Your task to perform on an android device: change notifications settings Image 0: 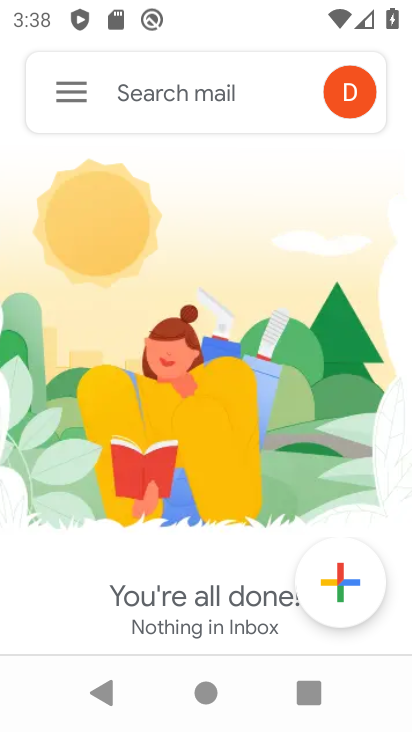
Step 0: press back button
Your task to perform on an android device: change notifications settings Image 1: 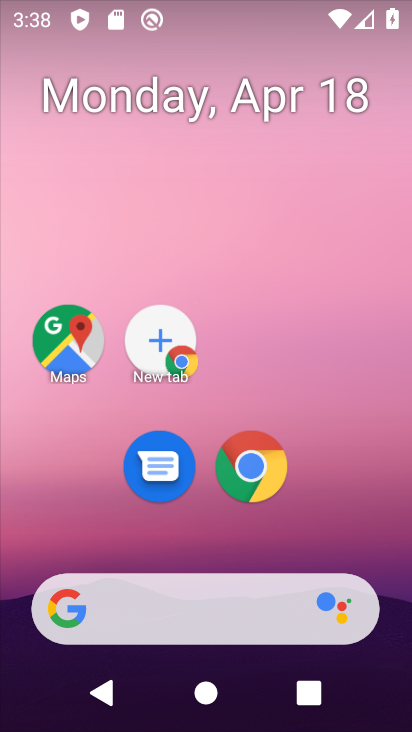
Step 1: drag from (364, 521) to (268, 32)
Your task to perform on an android device: change notifications settings Image 2: 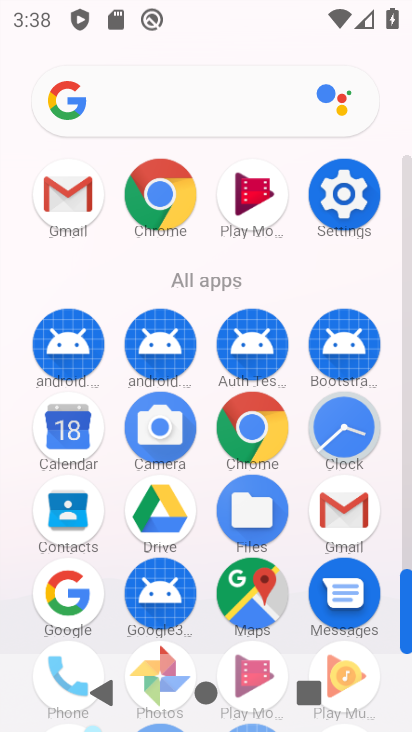
Step 2: click (347, 197)
Your task to perform on an android device: change notifications settings Image 3: 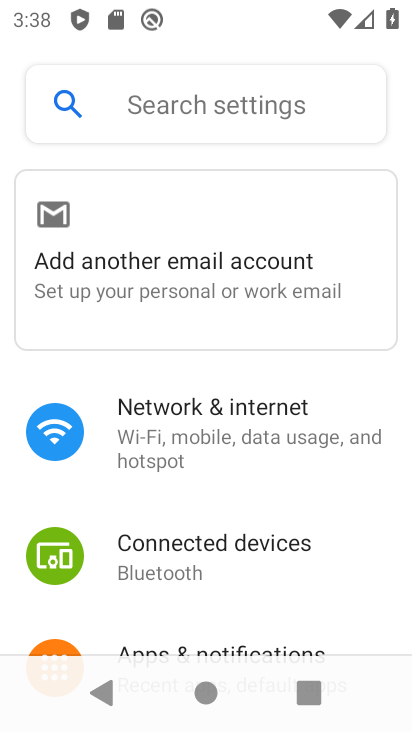
Step 3: drag from (330, 517) to (348, 227)
Your task to perform on an android device: change notifications settings Image 4: 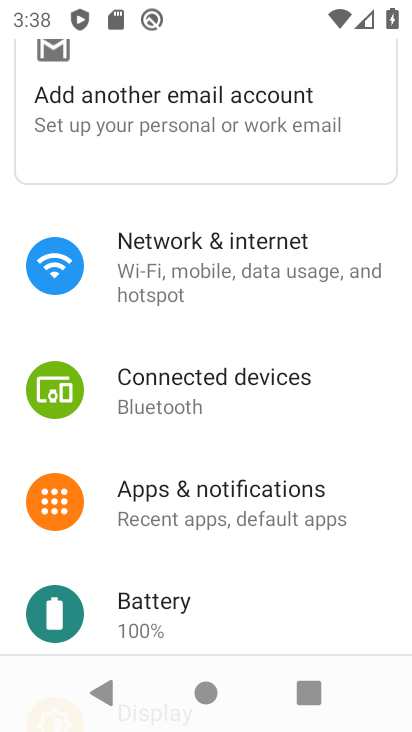
Step 4: click (293, 496)
Your task to perform on an android device: change notifications settings Image 5: 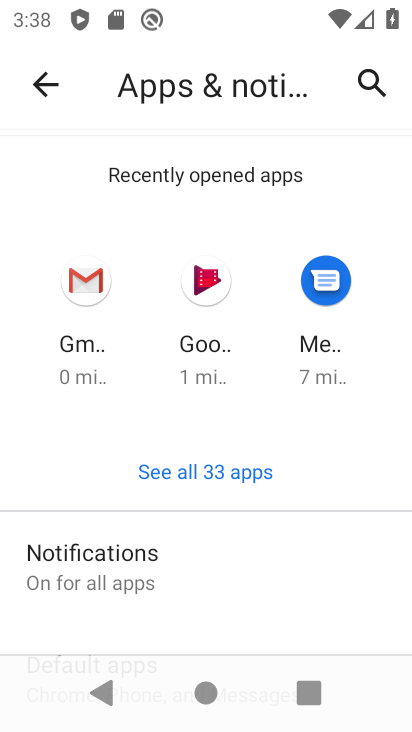
Step 5: click (190, 568)
Your task to perform on an android device: change notifications settings Image 6: 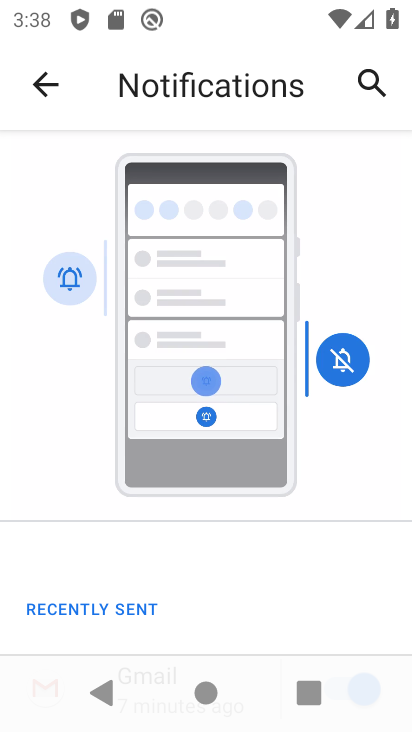
Step 6: drag from (191, 542) to (193, 182)
Your task to perform on an android device: change notifications settings Image 7: 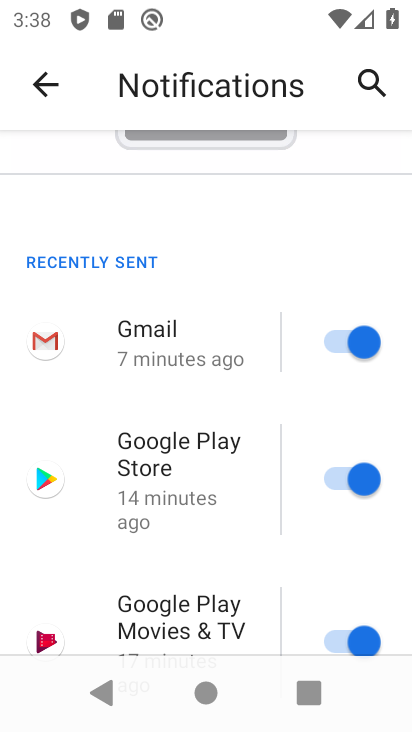
Step 7: drag from (193, 522) to (187, 231)
Your task to perform on an android device: change notifications settings Image 8: 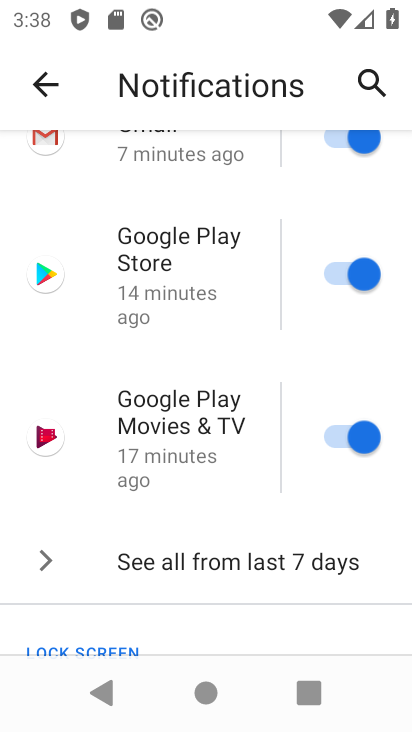
Step 8: drag from (217, 547) to (224, 196)
Your task to perform on an android device: change notifications settings Image 9: 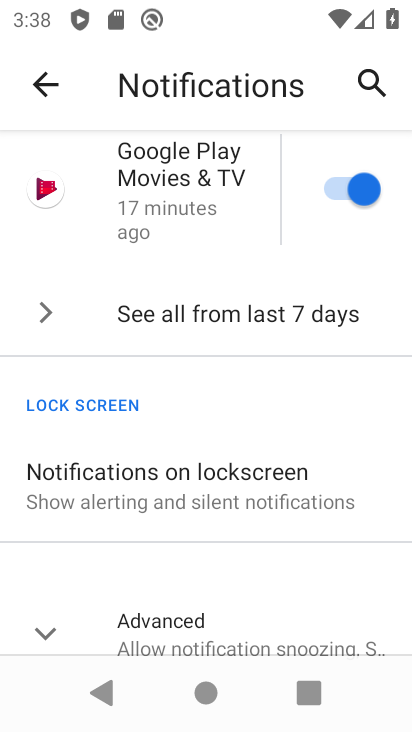
Step 9: drag from (236, 513) to (224, 245)
Your task to perform on an android device: change notifications settings Image 10: 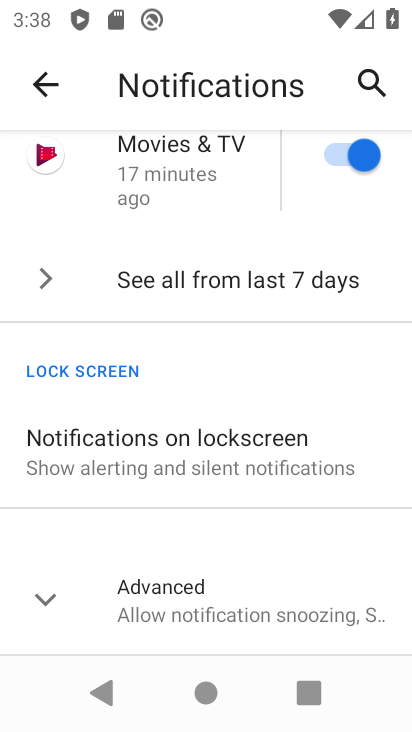
Step 10: click (218, 588)
Your task to perform on an android device: change notifications settings Image 11: 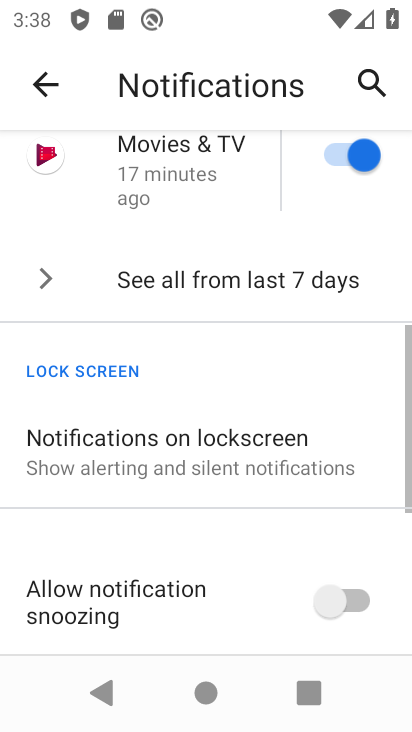
Step 11: drag from (239, 583) to (250, 272)
Your task to perform on an android device: change notifications settings Image 12: 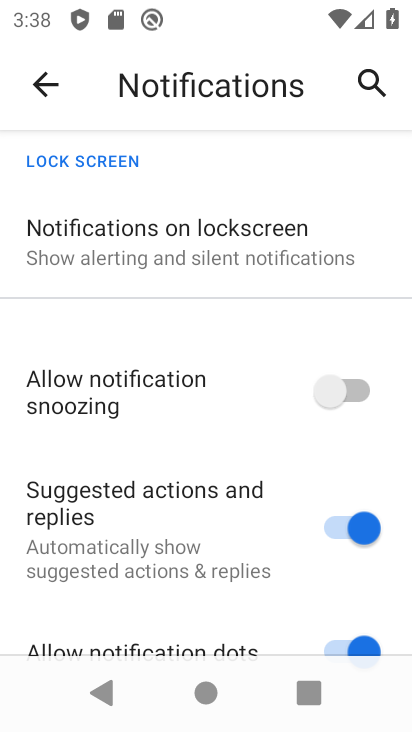
Step 12: drag from (228, 631) to (228, 328)
Your task to perform on an android device: change notifications settings Image 13: 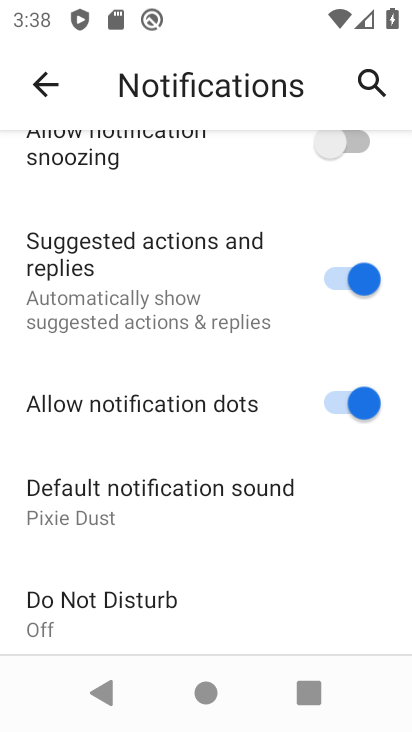
Step 13: click (356, 280)
Your task to perform on an android device: change notifications settings Image 14: 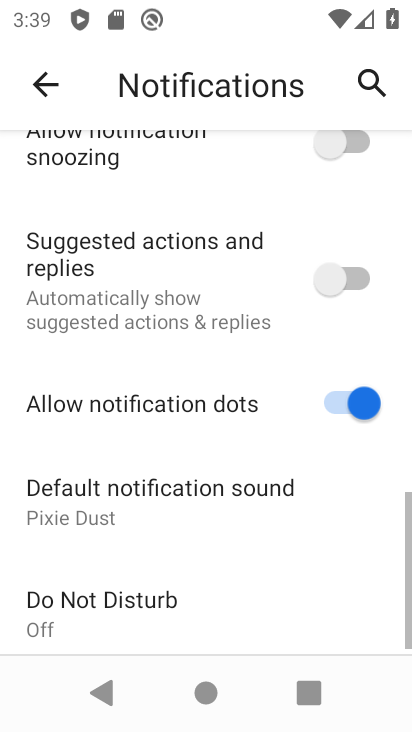
Step 14: click (337, 404)
Your task to perform on an android device: change notifications settings Image 15: 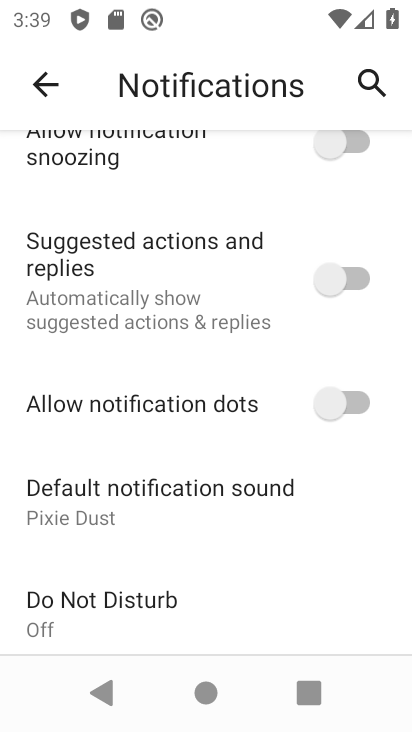
Step 15: task complete